Your task to perform on an android device: turn off data saver in the chrome app Image 0: 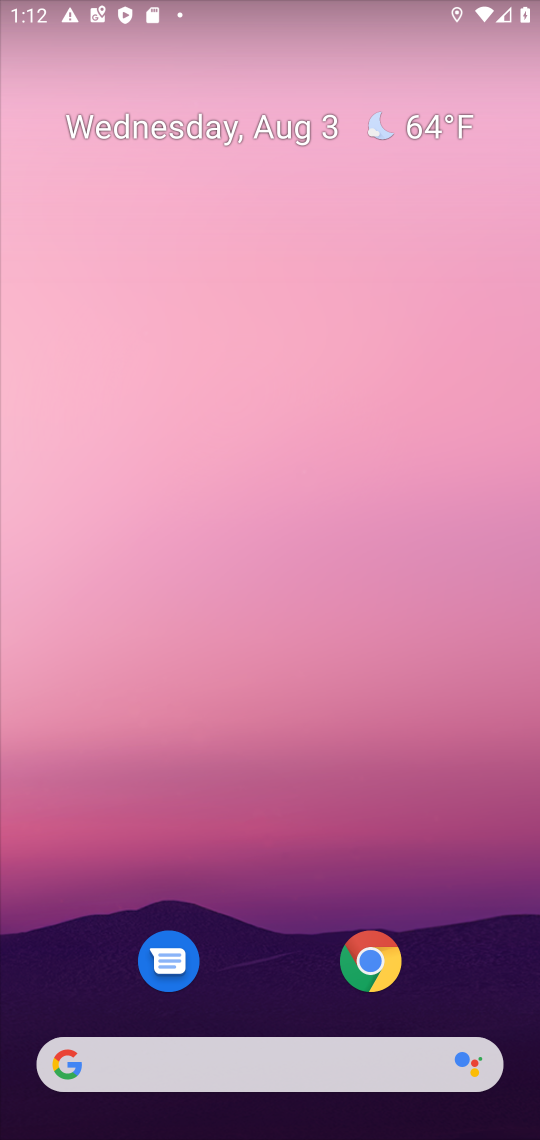
Step 0: press home button
Your task to perform on an android device: turn off data saver in the chrome app Image 1: 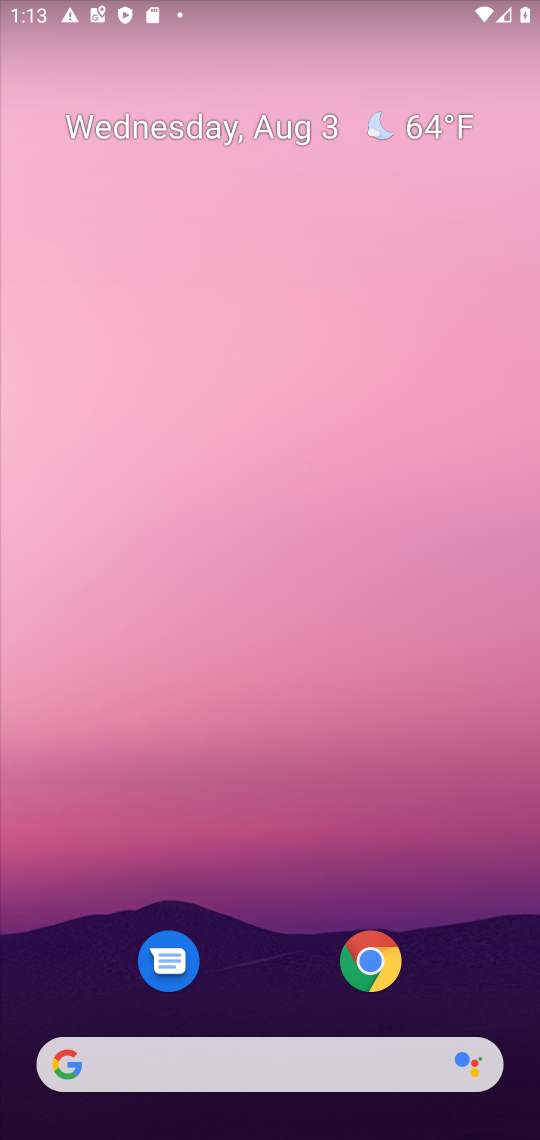
Step 1: click (378, 970)
Your task to perform on an android device: turn off data saver in the chrome app Image 2: 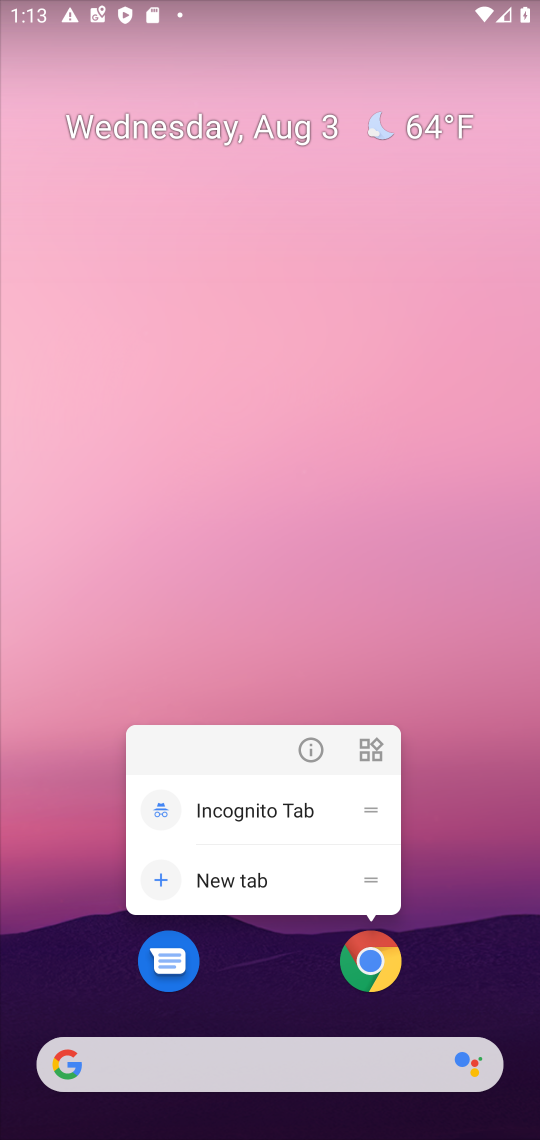
Step 2: click (377, 964)
Your task to perform on an android device: turn off data saver in the chrome app Image 3: 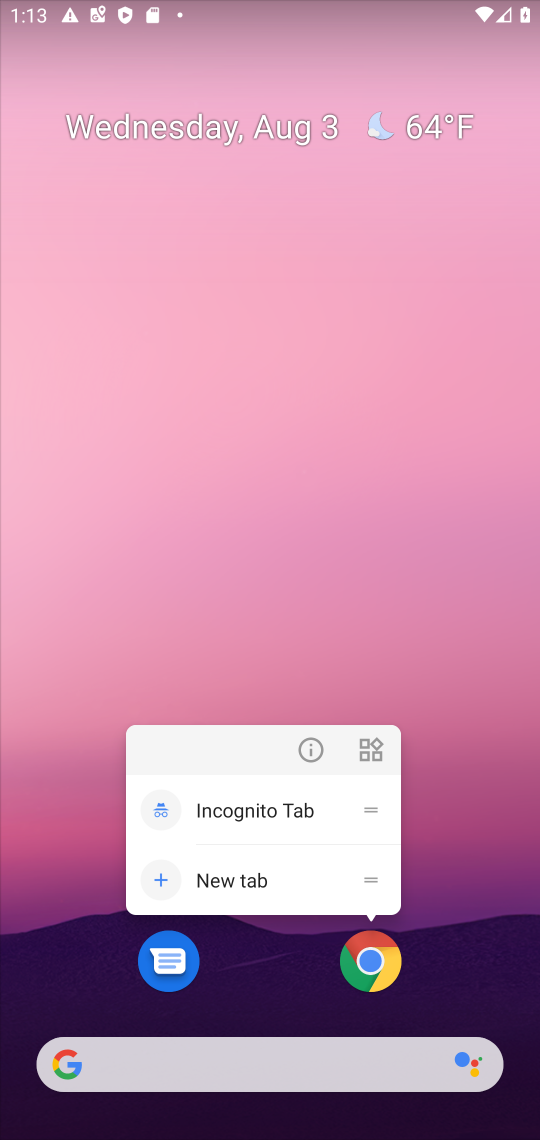
Step 3: click (382, 973)
Your task to perform on an android device: turn off data saver in the chrome app Image 4: 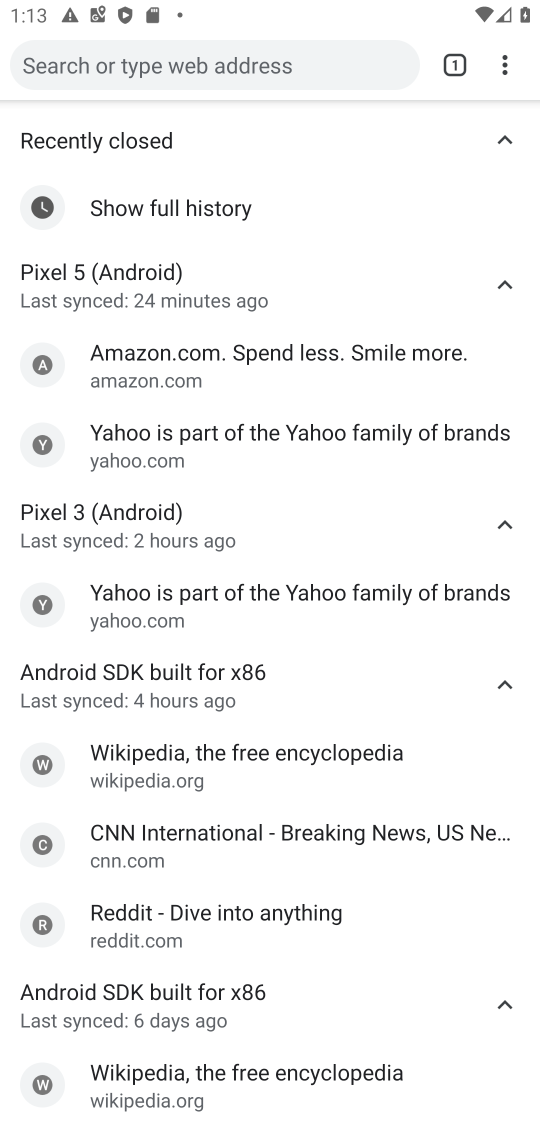
Step 4: drag from (510, 65) to (293, 542)
Your task to perform on an android device: turn off data saver in the chrome app Image 5: 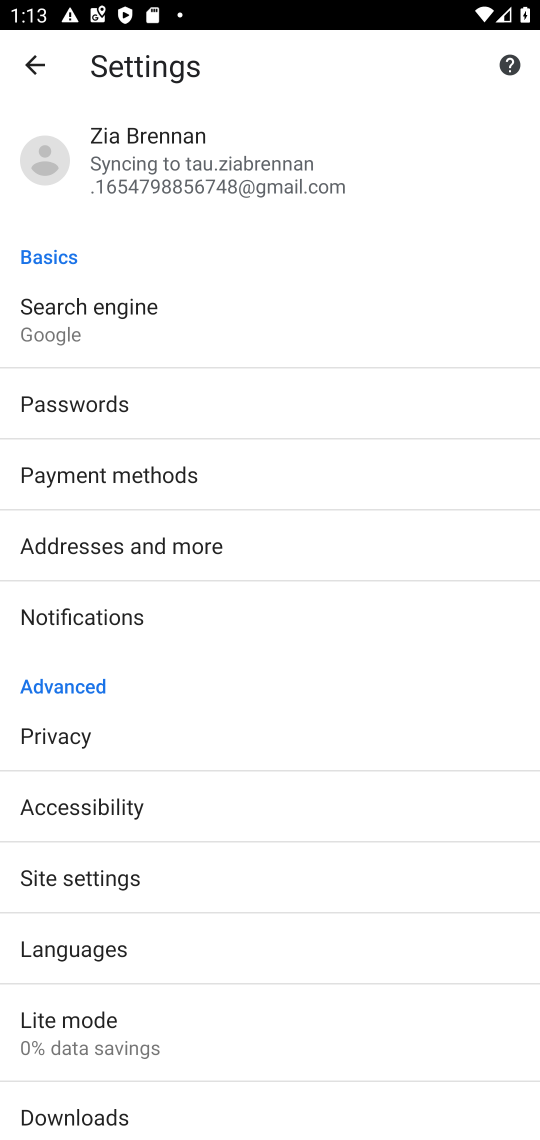
Step 5: click (76, 1026)
Your task to perform on an android device: turn off data saver in the chrome app Image 6: 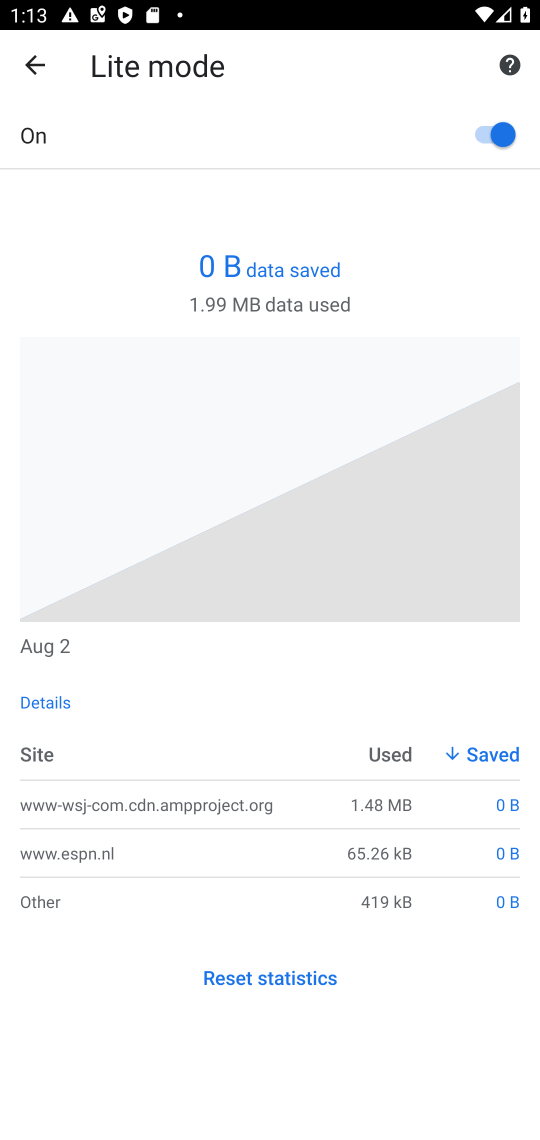
Step 6: click (498, 129)
Your task to perform on an android device: turn off data saver in the chrome app Image 7: 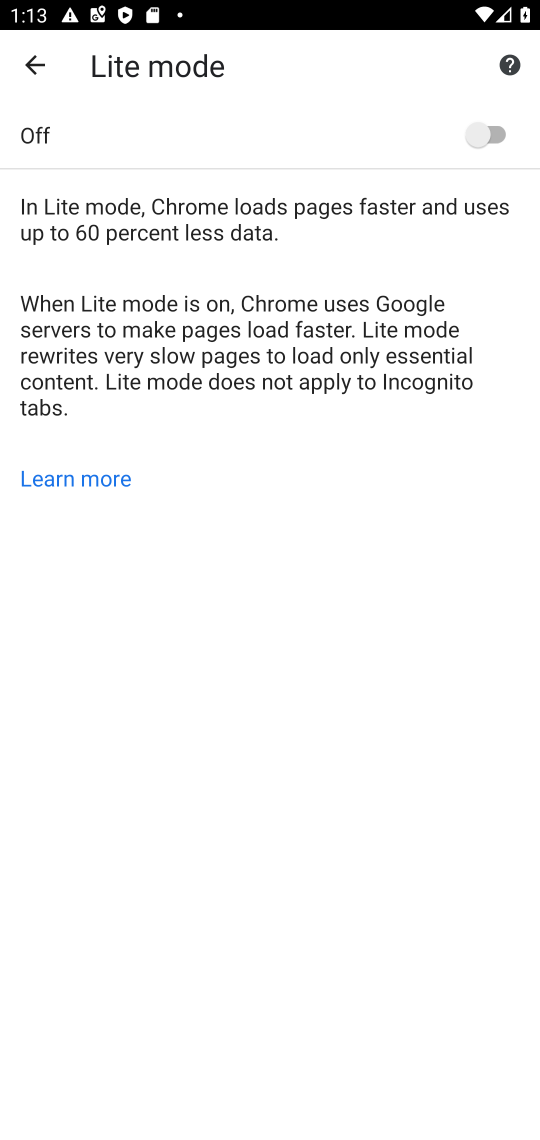
Step 7: task complete